Your task to perform on an android device: turn pop-ups off in chrome Image 0: 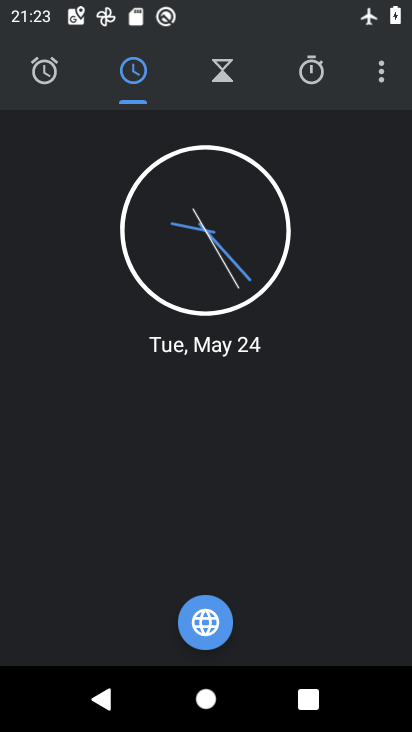
Step 0: press home button
Your task to perform on an android device: turn pop-ups off in chrome Image 1: 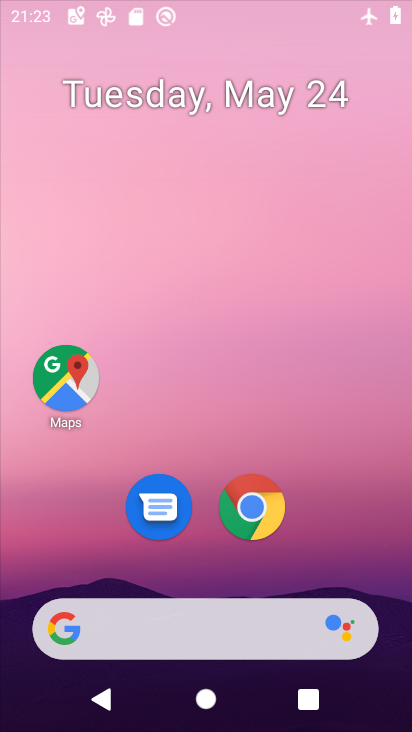
Step 1: drag from (187, 578) to (264, 55)
Your task to perform on an android device: turn pop-ups off in chrome Image 2: 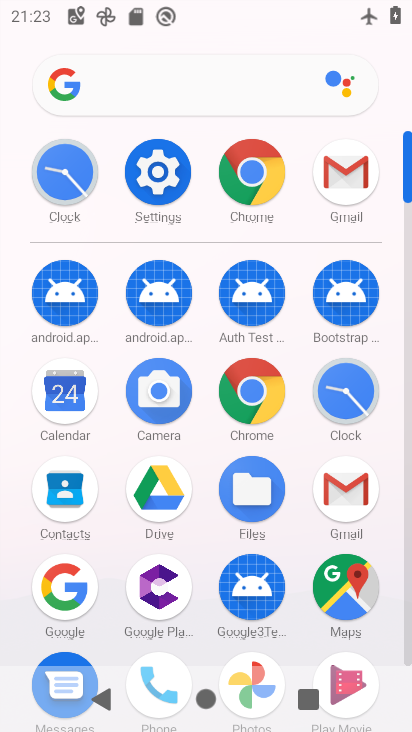
Step 2: click (242, 389)
Your task to perform on an android device: turn pop-ups off in chrome Image 3: 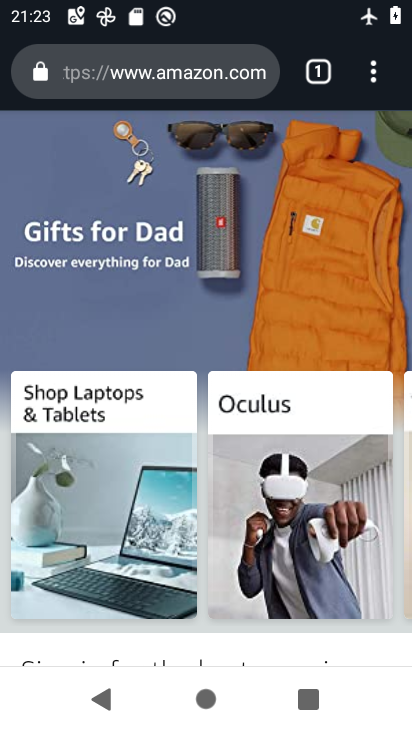
Step 3: click (373, 69)
Your task to perform on an android device: turn pop-ups off in chrome Image 4: 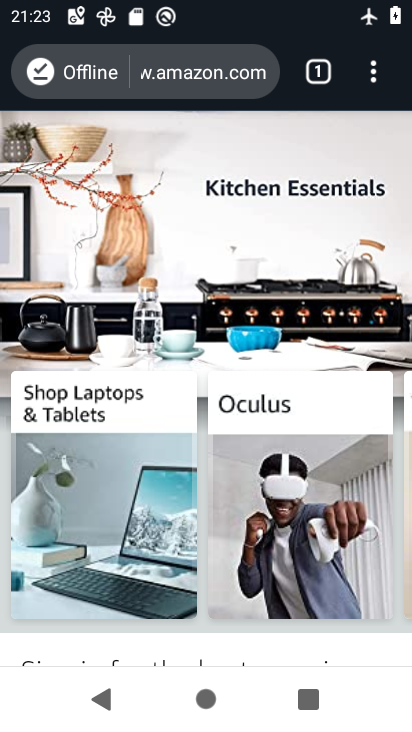
Step 4: drag from (251, 617) to (242, 362)
Your task to perform on an android device: turn pop-ups off in chrome Image 5: 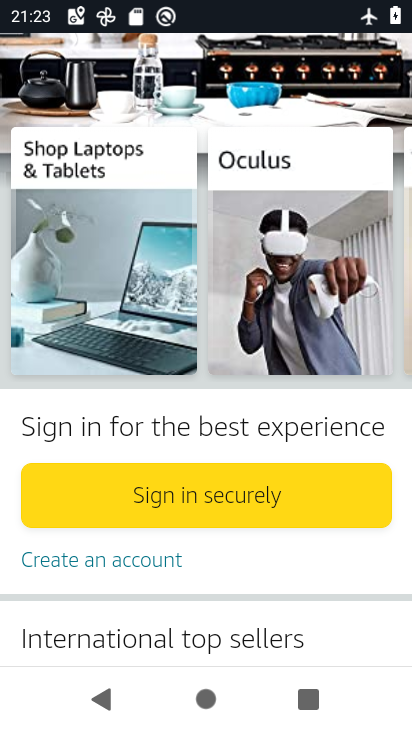
Step 5: drag from (217, 632) to (249, 257)
Your task to perform on an android device: turn pop-ups off in chrome Image 6: 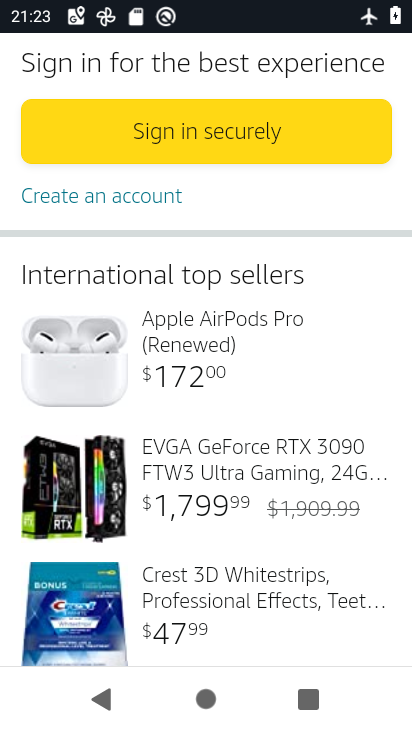
Step 6: drag from (290, 61) to (275, 609)
Your task to perform on an android device: turn pop-ups off in chrome Image 7: 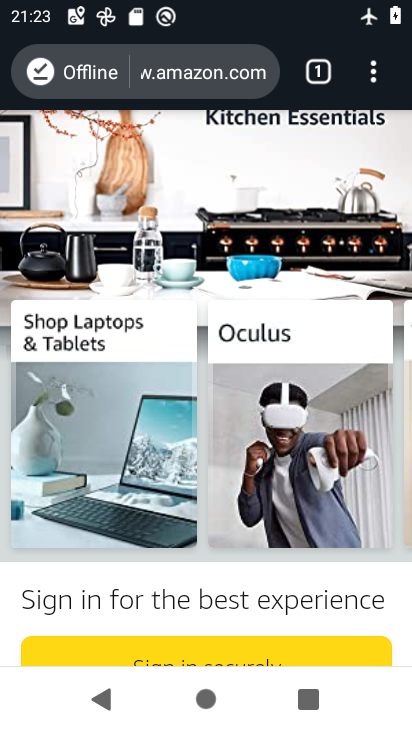
Step 7: click (369, 74)
Your task to perform on an android device: turn pop-ups off in chrome Image 8: 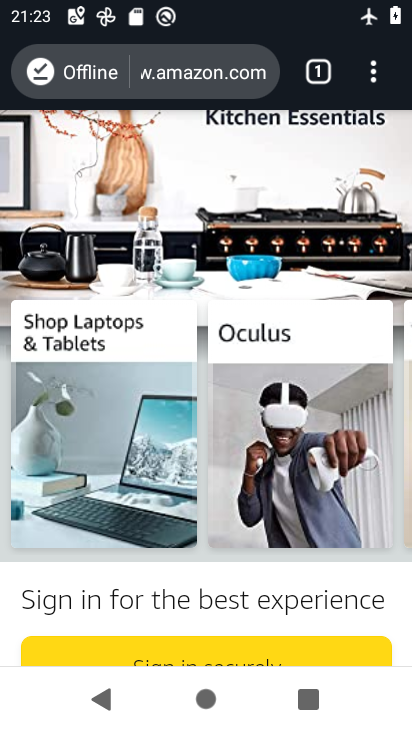
Step 8: click (375, 63)
Your task to perform on an android device: turn pop-ups off in chrome Image 9: 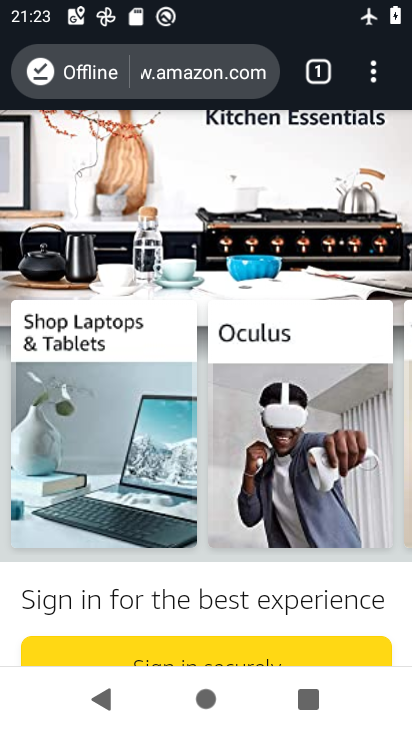
Step 9: click (377, 67)
Your task to perform on an android device: turn pop-ups off in chrome Image 10: 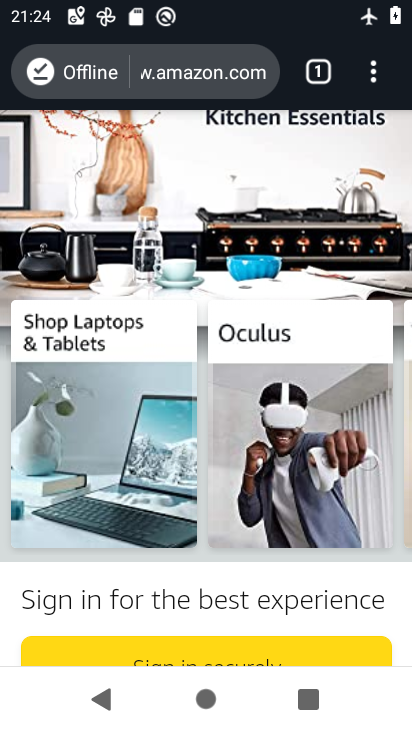
Step 10: click (375, 60)
Your task to perform on an android device: turn pop-ups off in chrome Image 11: 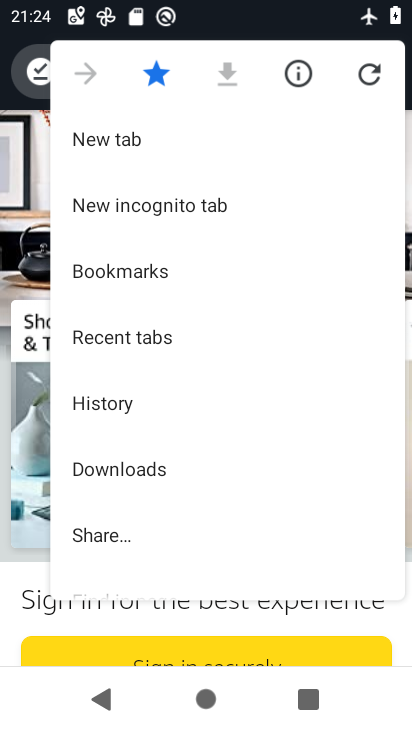
Step 11: drag from (181, 465) to (228, 81)
Your task to perform on an android device: turn pop-ups off in chrome Image 12: 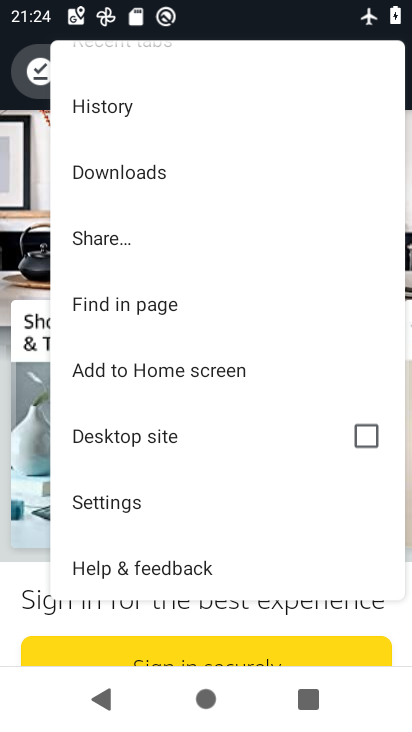
Step 12: click (137, 492)
Your task to perform on an android device: turn pop-ups off in chrome Image 13: 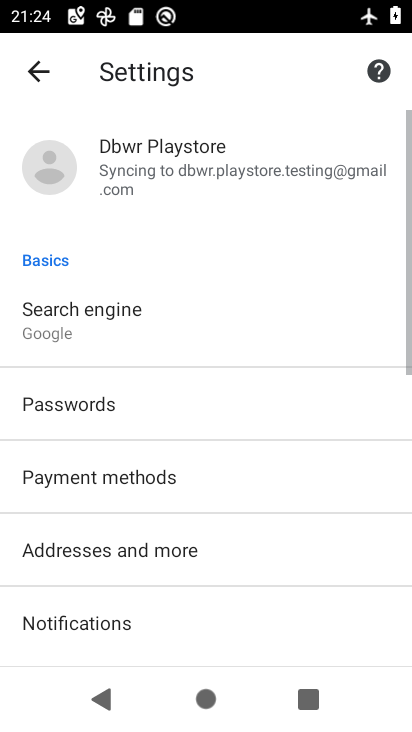
Step 13: drag from (210, 564) to (259, 130)
Your task to perform on an android device: turn pop-ups off in chrome Image 14: 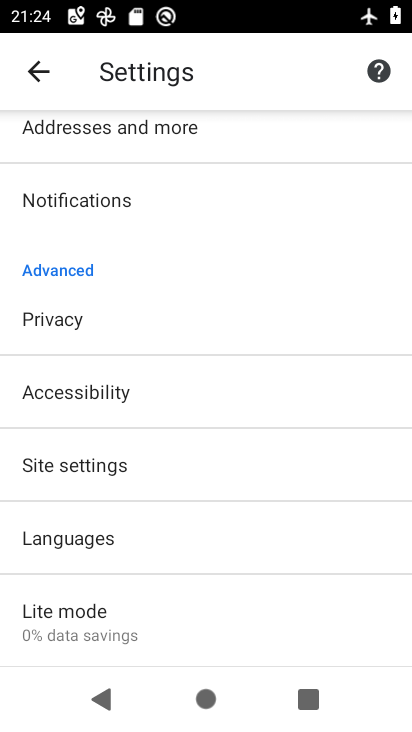
Step 14: drag from (195, 547) to (254, 298)
Your task to perform on an android device: turn pop-ups off in chrome Image 15: 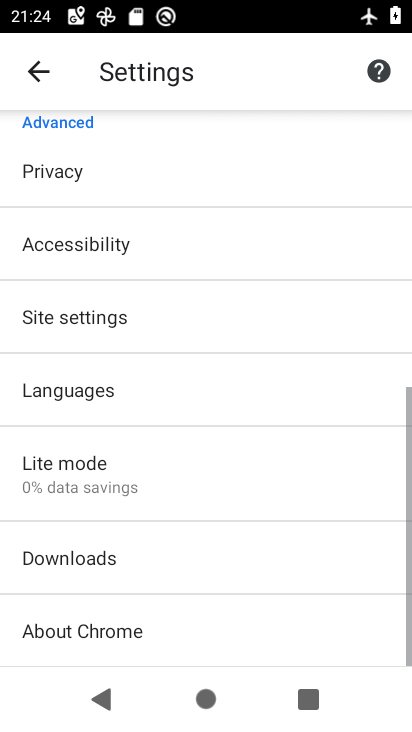
Step 15: click (158, 315)
Your task to perform on an android device: turn pop-ups off in chrome Image 16: 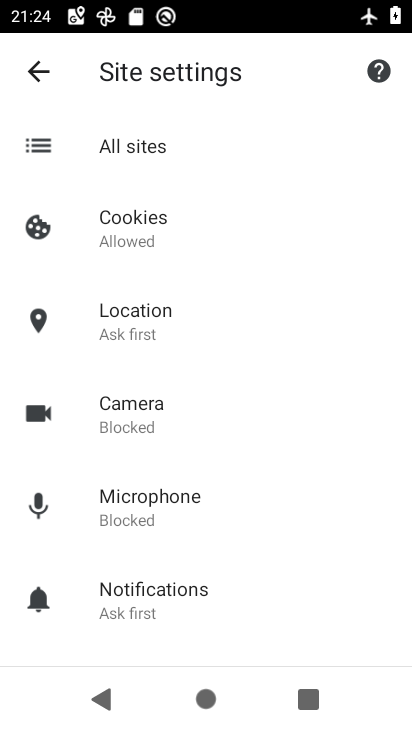
Step 16: drag from (174, 533) to (254, 161)
Your task to perform on an android device: turn pop-ups off in chrome Image 17: 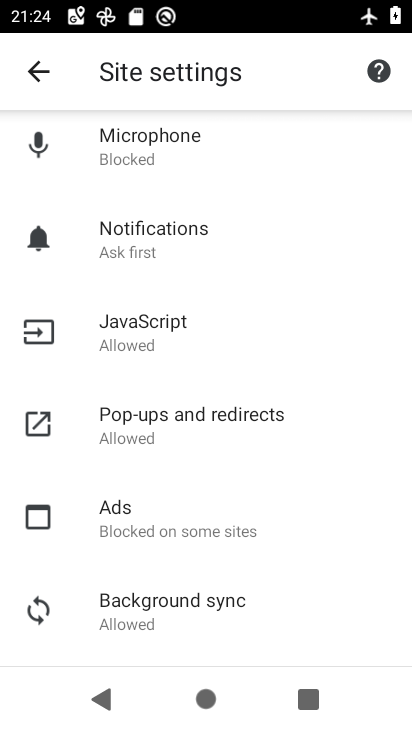
Step 17: drag from (235, 557) to (240, 344)
Your task to perform on an android device: turn pop-ups off in chrome Image 18: 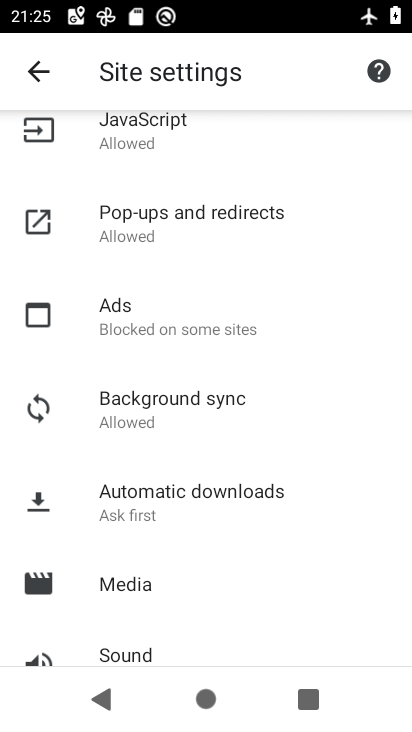
Step 18: drag from (205, 572) to (263, 139)
Your task to perform on an android device: turn pop-ups off in chrome Image 19: 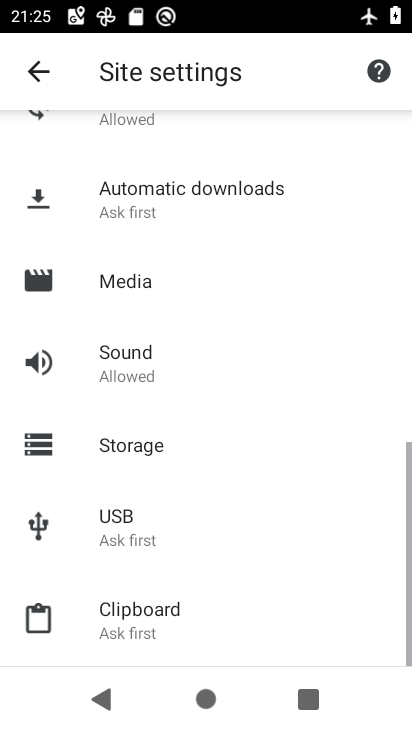
Step 19: drag from (151, 178) to (234, 629)
Your task to perform on an android device: turn pop-ups off in chrome Image 20: 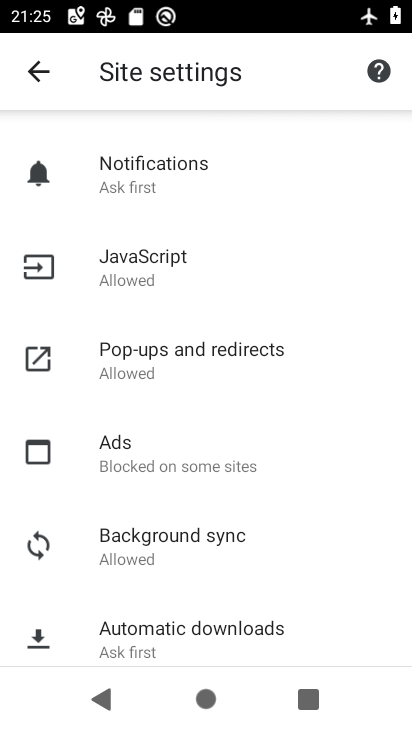
Step 20: drag from (168, 549) to (216, 84)
Your task to perform on an android device: turn pop-ups off in chrome Image 21: 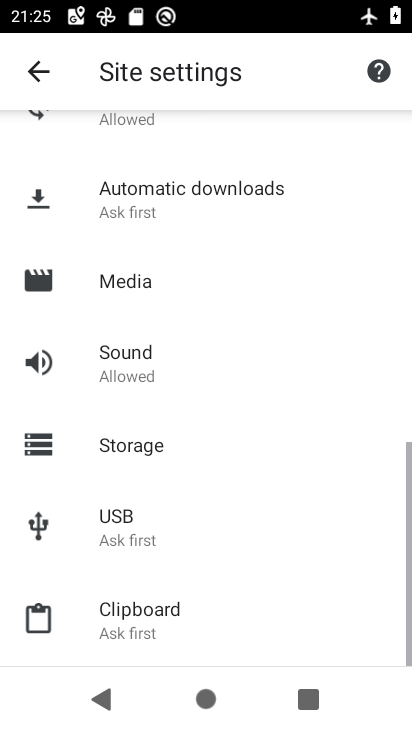
Step 21: drag from (101, 168) to (208, 592)
Your task to perform on an android device: turn pop-ups off in chrome Image 22: 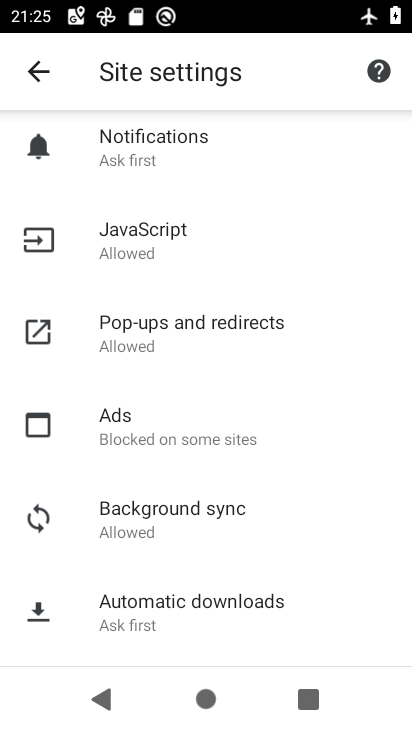
Step 22: click (170, 325)
Your task to perform on an android device: turn pop-ups off in chrome Image 23: 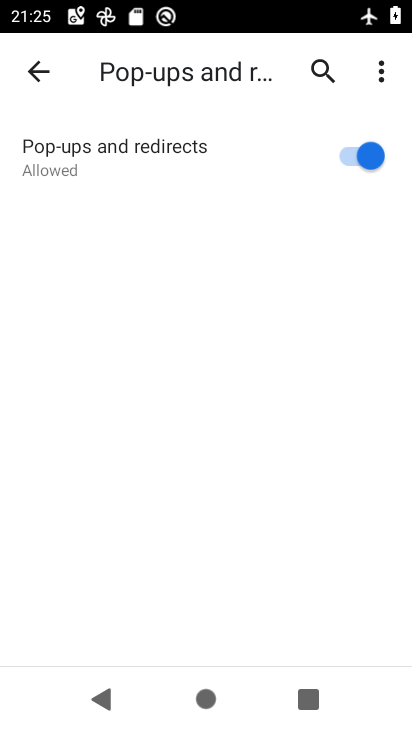
Step 23: click (371, 155)
Your task to perform on an android device: turn pop-ups off in chrome Image 24: 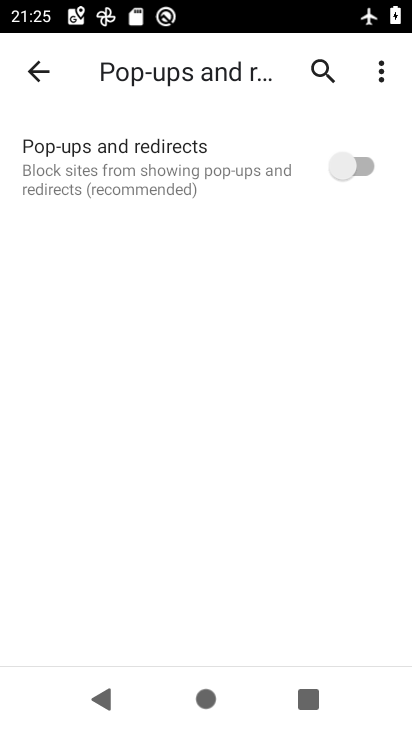
Step 24: task complete